Your task to perform on an android device: toggle show notifications on the lock screen Image 0: 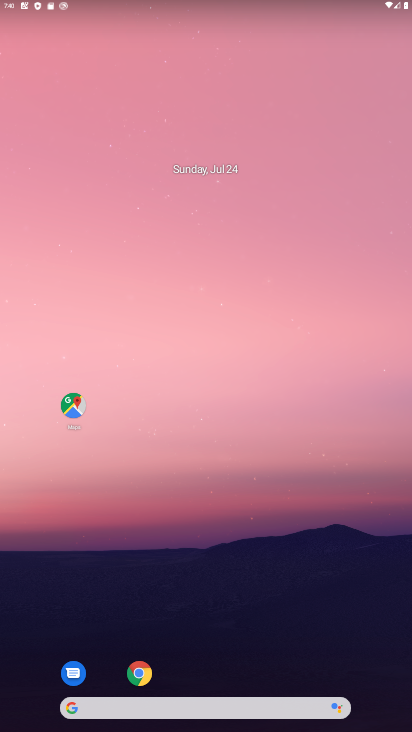
Step 0: drag from (176, 665) to (240, 248)
Your task to perform on an android device: toggle show notifications on the lock screen Image 1: 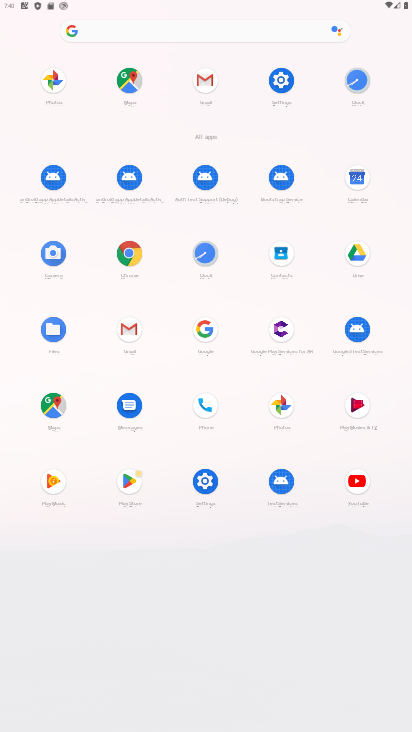
Step 1: click (196, 478)
Your task to perform on an android device: toggle show notifications on the lock screen Image 2: 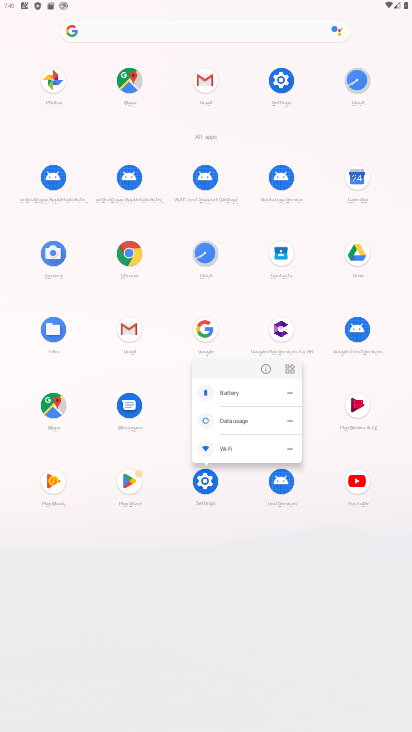
Step 2: click (264, 368)
Your task to perform on an android device: toggle show notifications on the lock screen Image 3: 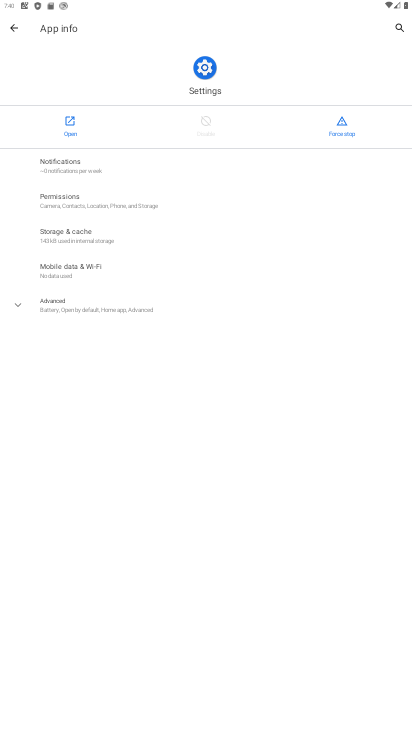
Step 3: click (77, 125)
Your task to perform on an android device: toggle show notifications on the lock screen Image 4: 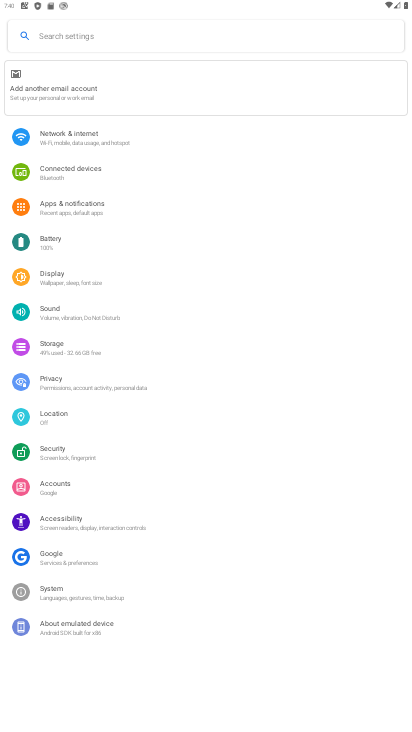
Step 4: click (76, 206)
Your task to perform on an android device: toggle show notifications on the lock screen Image 5: 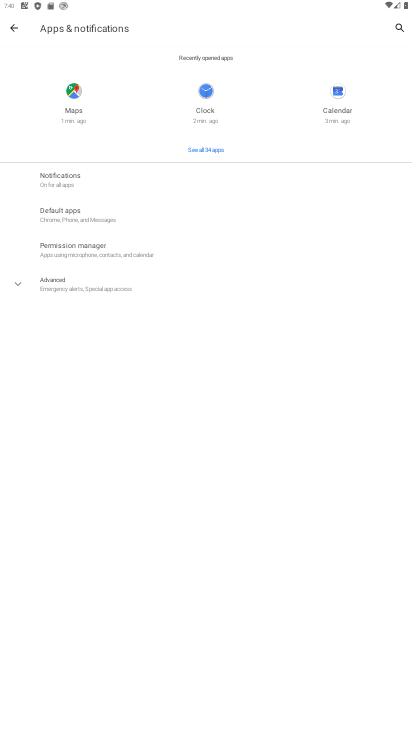
Step 5: click (80, 173)
Your task to perform on an android device: toggle show notifications on the lock screen Image 6: 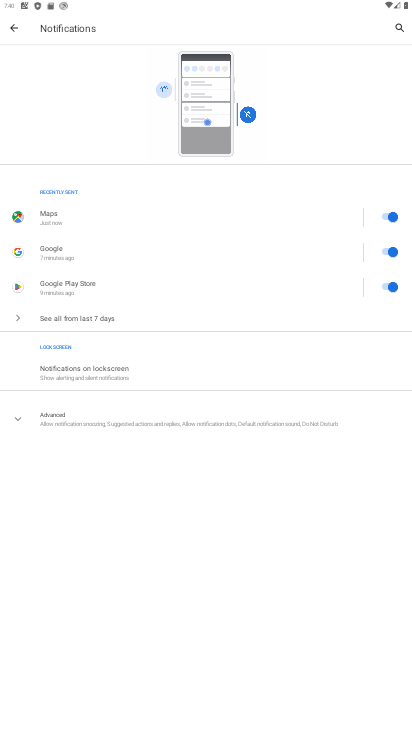
Step 6: click (84, 371)
Your task to perform on an android device: toggle show notifications on the lock screen Image 7: 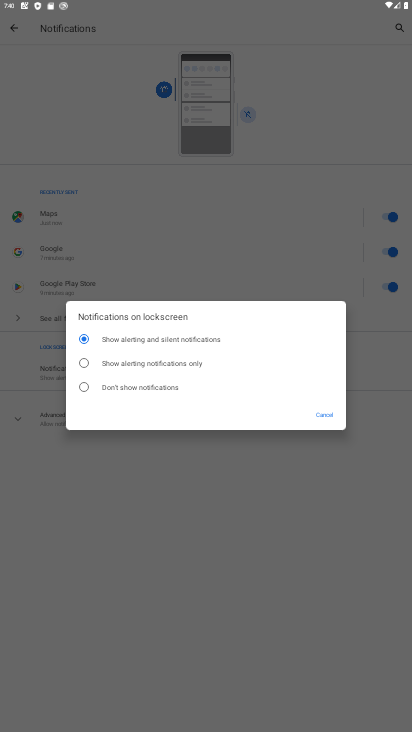
Step 7: click (86, 359)
Your task to perform on an android device: toggle show notifications on the lock screen Image 8: 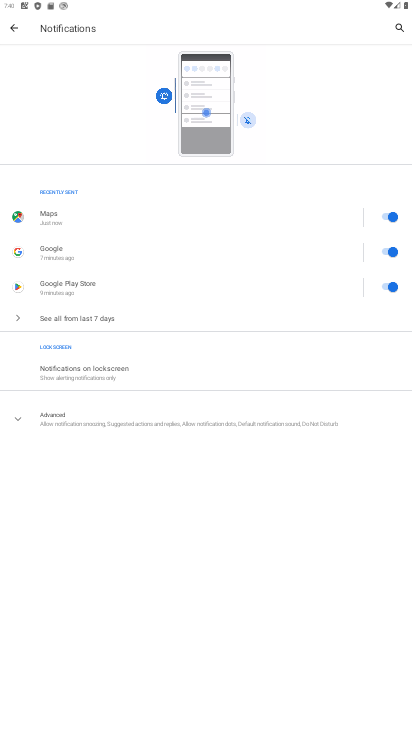
Step 8: task complete